Your task to perform on an android device: Open Chrome and go to the settings page Image 0: 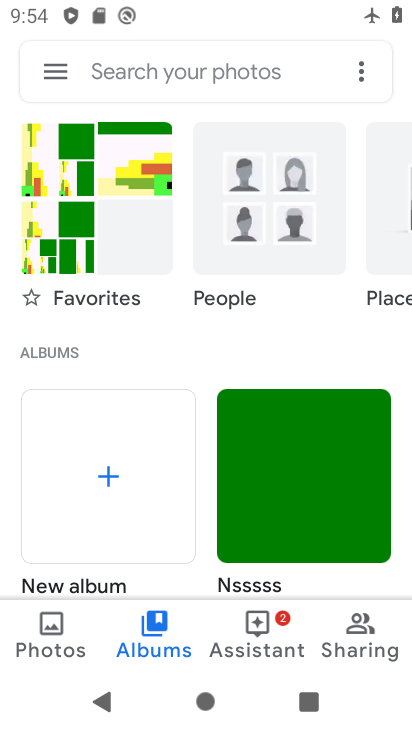
Step 0: press home button
Your task to perform on an android device: Open Chrome and go to the settings page Image 1: 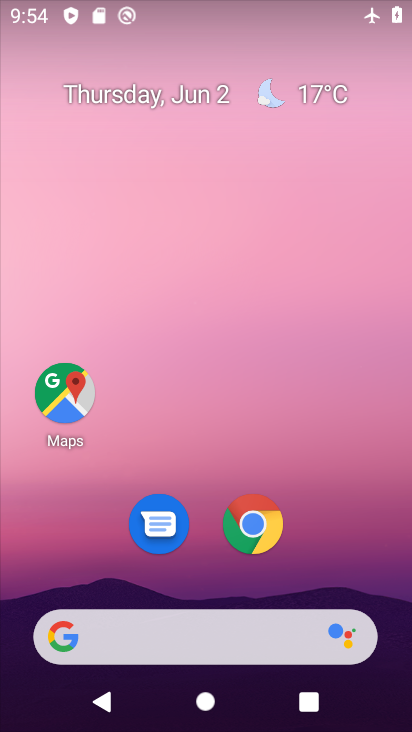
Step 1: click (253, 519)
Your task to perform on an android device: Open Chrome and go to the settings page Image 2: 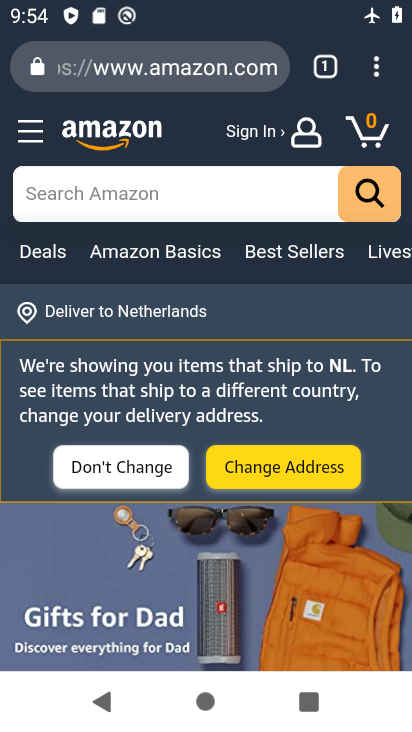
Step 2: click (370, 68)
Your task to perform on an android device: Open Chrome and go to the settings page Image 3: 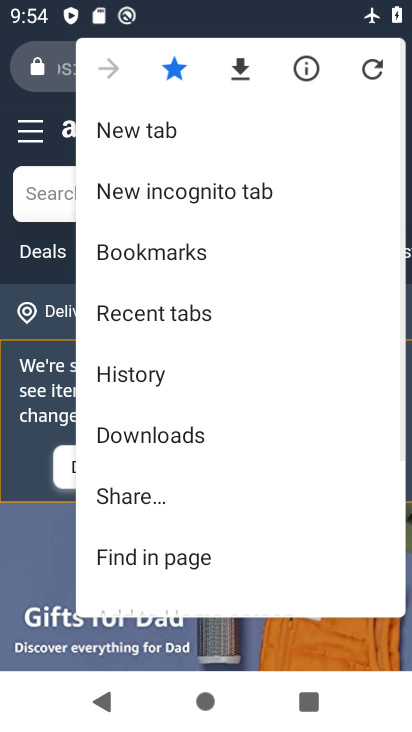
Step 3: drag from (261, 437) to (254, 164)
Your task to perform on an android device: Open Chrome and go to the settings page Image 4: 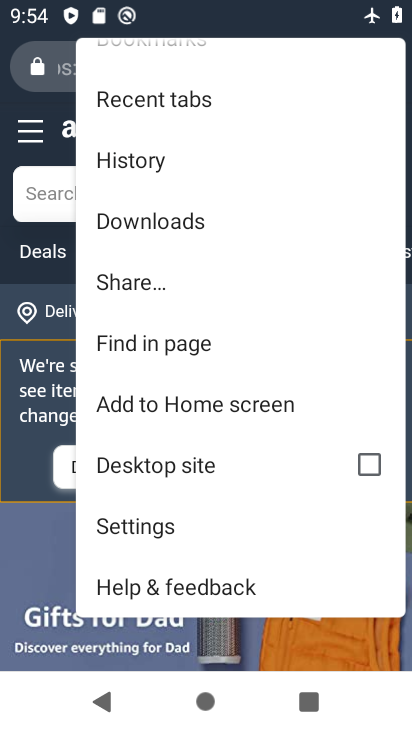
Step 4: click (214, 525)
Your task to perform on an android device: Open Chrome and go to the settings page Image 5: 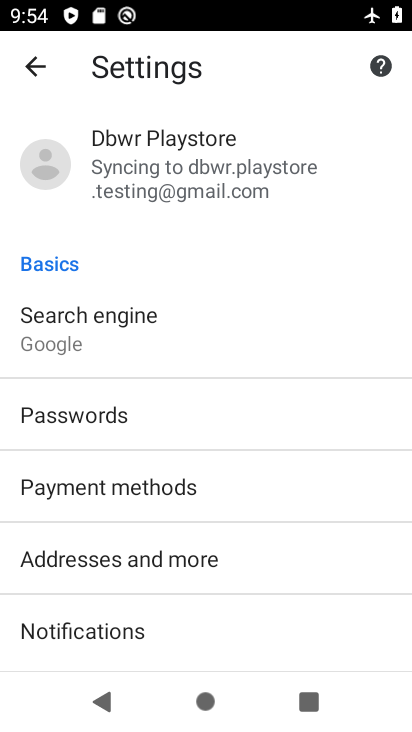
Step 5: task complete